Your task to perform on an android device: turn on wifi Image 0: 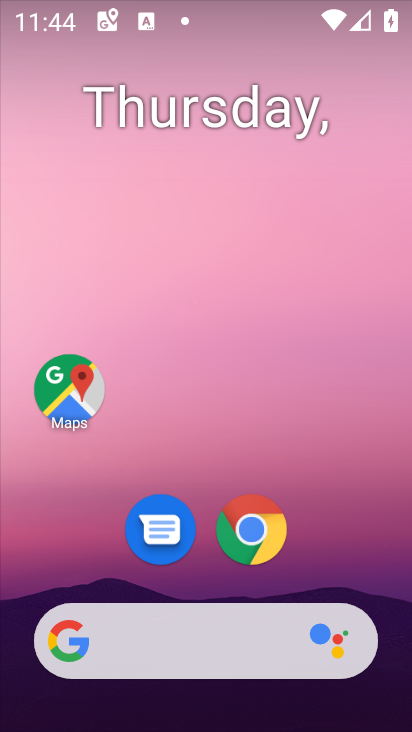
Step 0: drag from (186, 637) to (296, 203)
Your task to perform on an android device: turn on wifi Image 1: 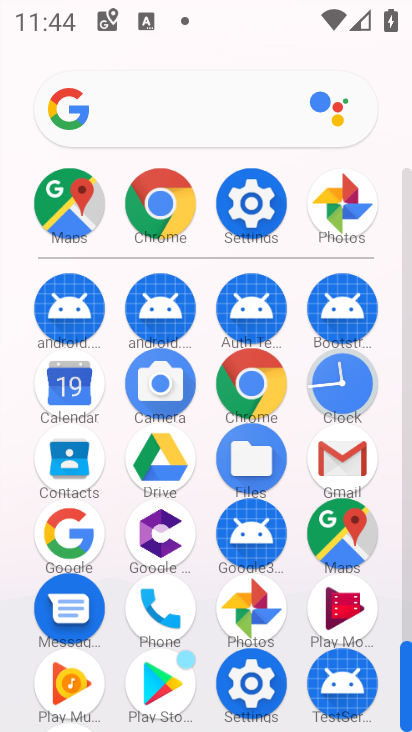
Step 1: click (269, 227)
Your task to perform on an android device: turn on wifi Image 2: 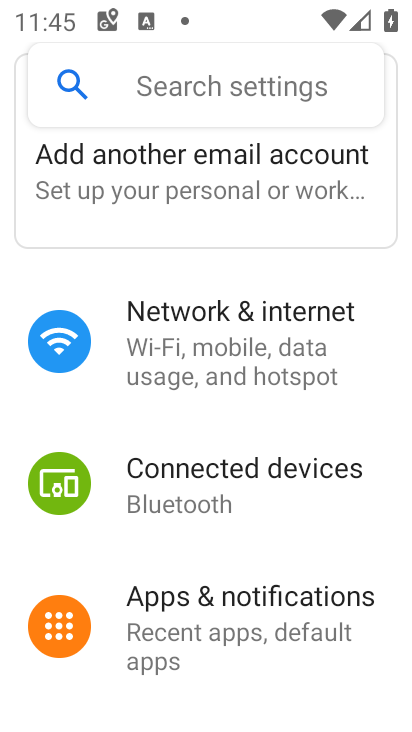
Step 2: drag from (223, 515) to (276, 256)
Your task to perform on an android device: turn on wifi Image 3: 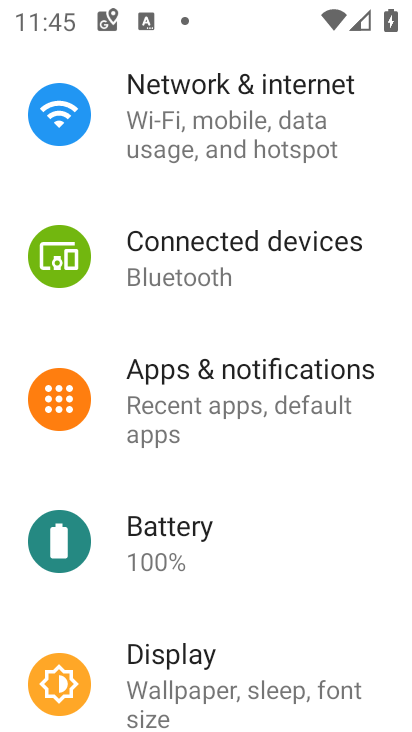
Step 3: drag from (236, 355) to (200, 694)
Your task to perform on an android device: turn on wifi Image 4: 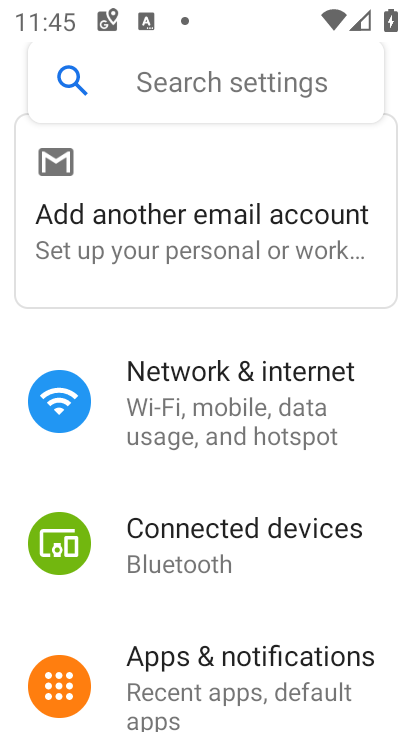
Step 4: click (254, 452)
Your task to perform on an android device: turn on wifi Image 5: 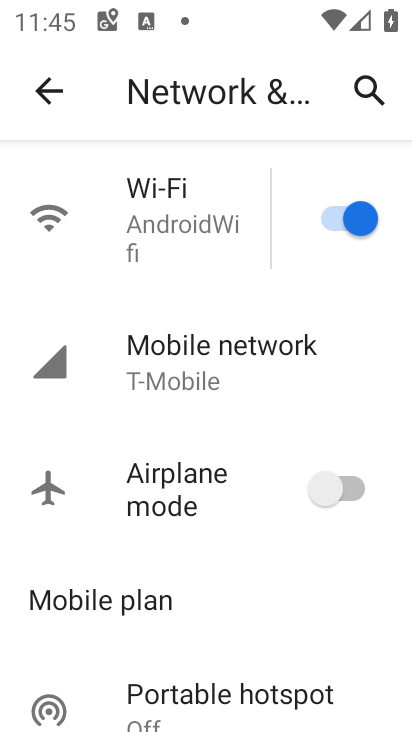
Step 5: task complete